Your task to perform on an android device: toggle data saver in the chrome app Image 0: 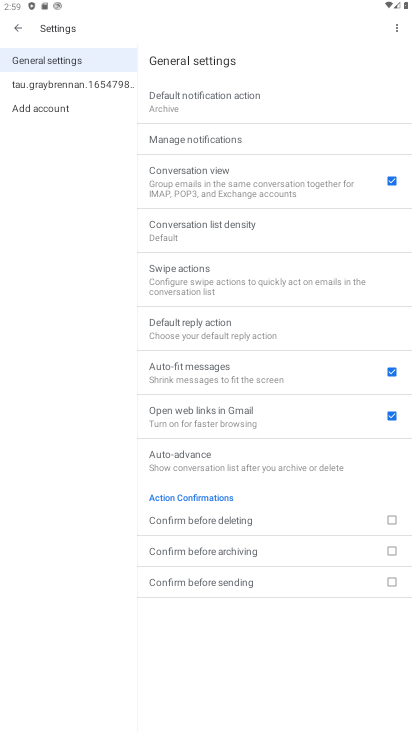
Step 0: press home button
Your task to perform on an android device: toggle data saver in the chrome app Image 1: 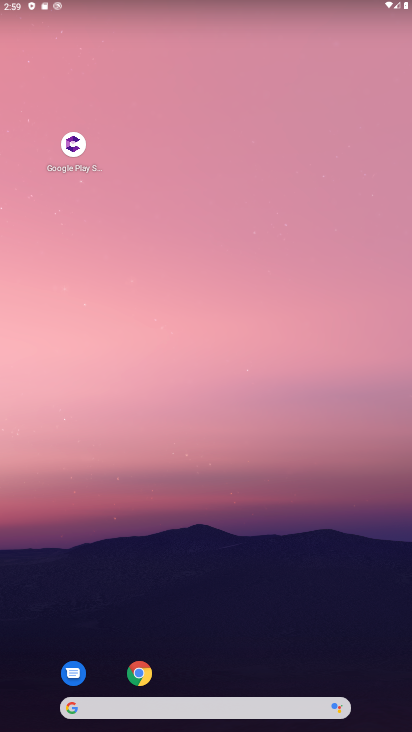
Step 1: click (141, 670)
Your task to perform on an android device: toggle data saver in the chrome app Image 2: 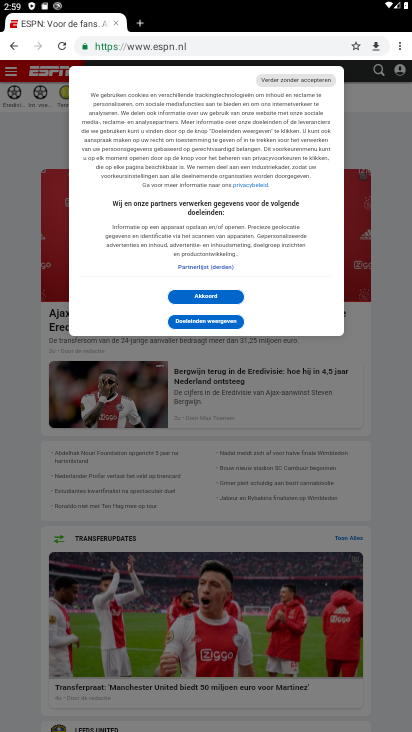
Step 2: drag from (400, 46) to (331, 307)
Your task to perform on an android device: toggle data saver in the chrome app Image 3: 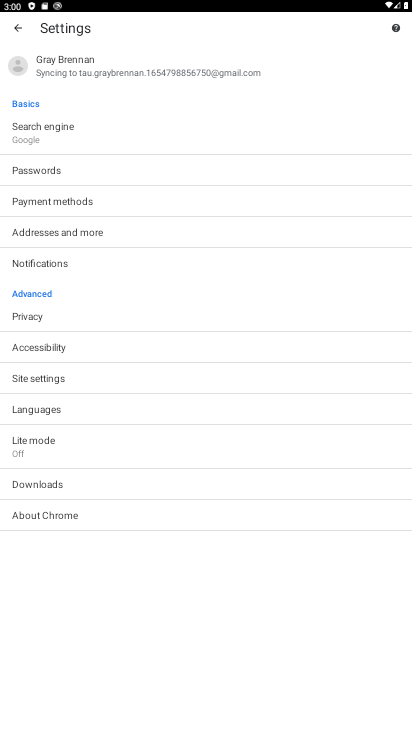
Step 3: click (62, 441)
Your task to perform on an android device: toggle data saver in the chrome app Image 4: 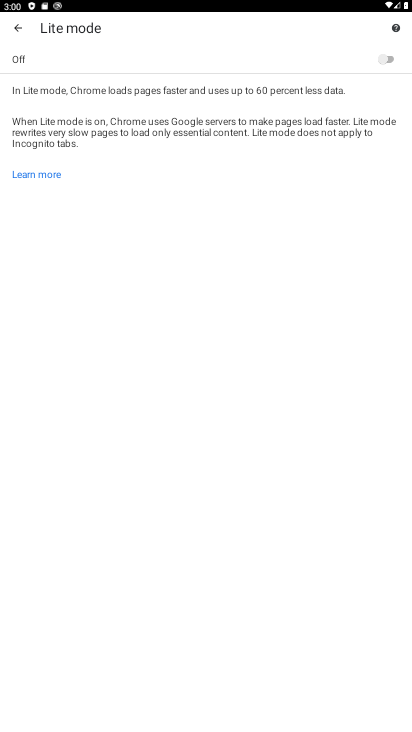
Step 4: click (382, 71)
Your task to perform on an android device: toggle data saver in the chrome app Image 5: 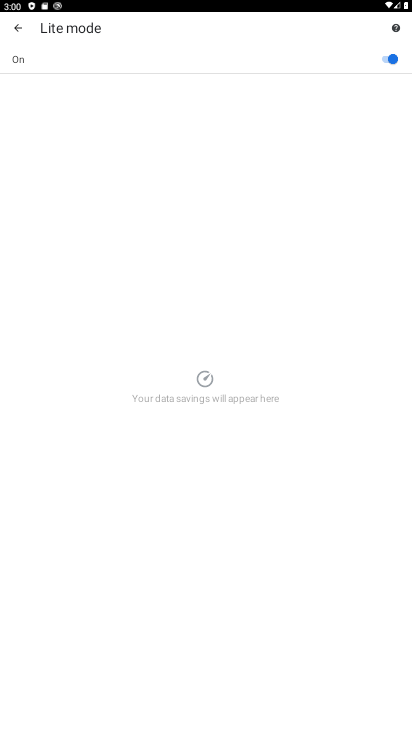
Step 5: task complete